Your task to perform on an android device: turn on javascript in the chrome app Image 0: 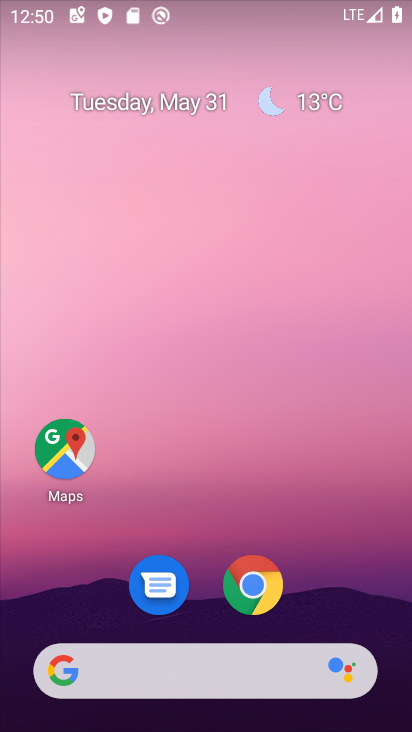
Step 0: click (262, 587)
Your task to perform on an android device: turn on javascript in the chrome app Image 1: 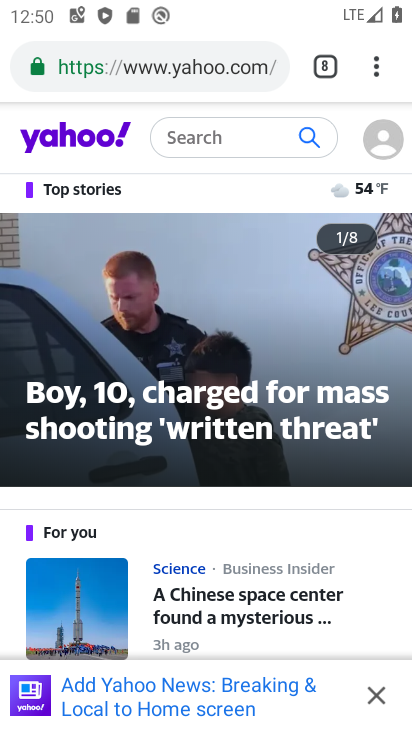
Step 1: click (376, 68)
Your task to perform on an android device: turn on javascript in the chrome app Image 2: 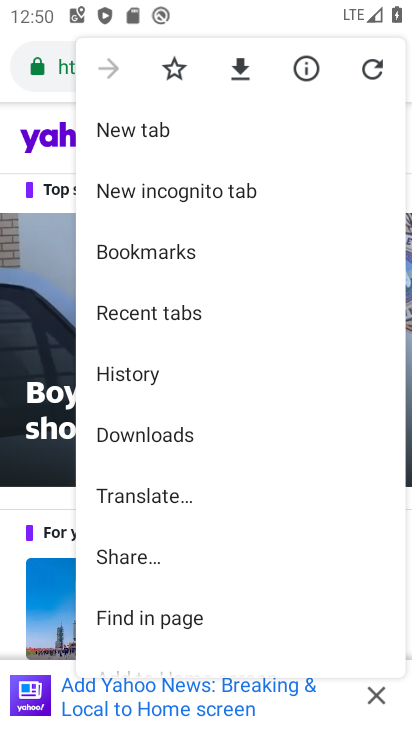
Step 2: drag from (258, 496) to (269, 169)
Your task to perform on an android device: turn on javascript in the chrome app Image 3: 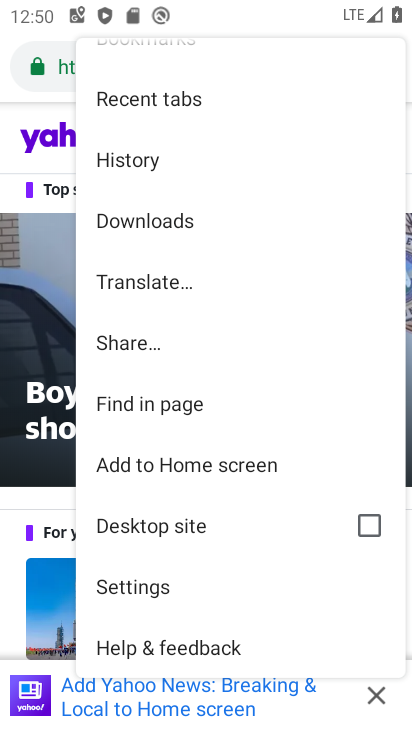
Step 3: click (168, 591)
Your task to perform on an android device: turn on javascript in the chrome app Image 4: 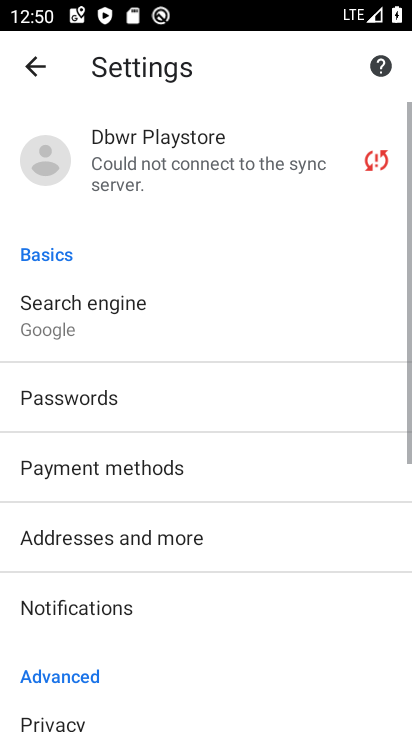
Step 4: drag from (224, 594) to (252, 194)
Your task to perform on an android device: turn on javascript in the chrome app Image 5: 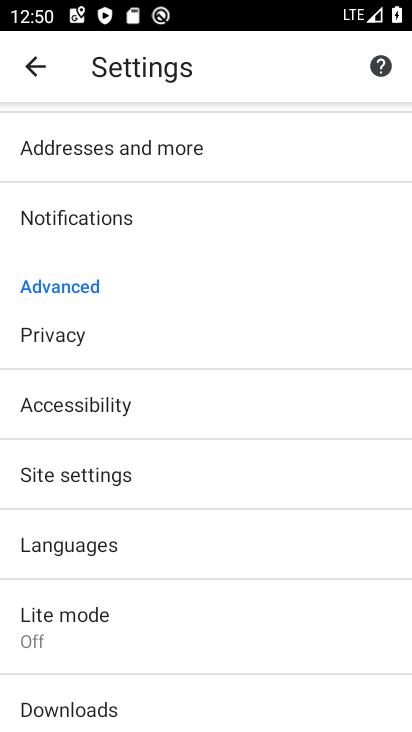
Step 5: click (183, 471)
Your task to perform on an android device: turn on javascript in the chrome app Image 6: 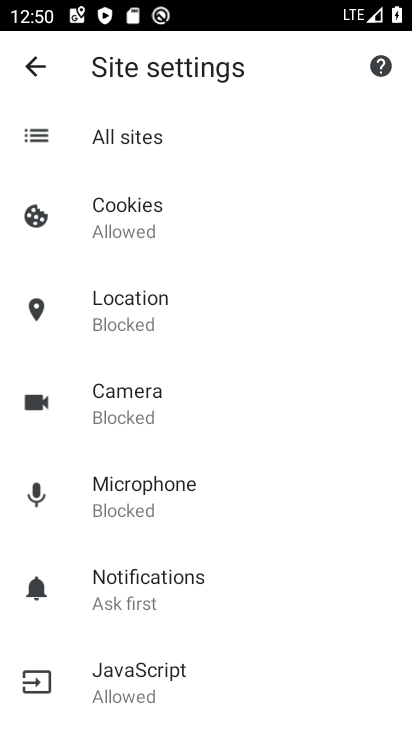
Step 6: click (201, 671)
Your task to perform on an android device: turn on javascript in the chrome app Image 7: 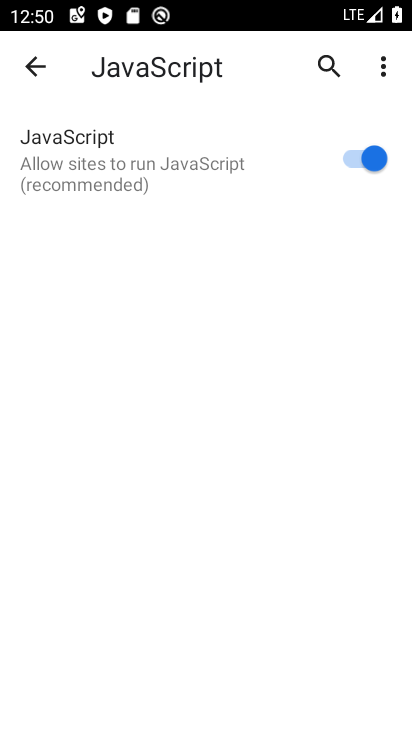
Step 7: task complete